Your task to perform on an android device: Find coffee shops on Maps Image 0: 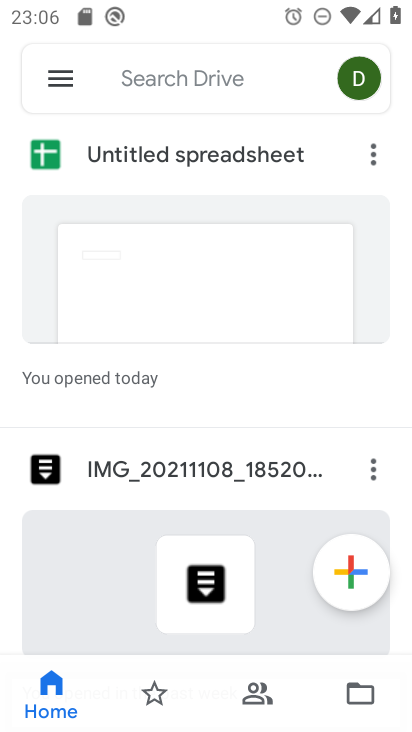
Step 0: press home button
Your task to perform on an android device: Find coffee shops on Maps Image 1: 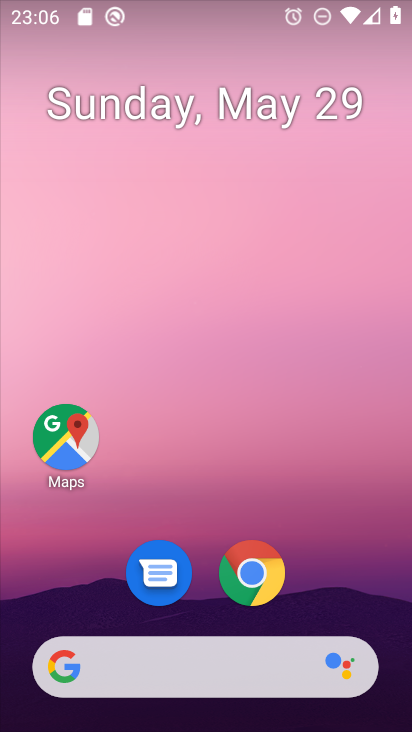
Step 1: click (61, 429)
Your task to perform on an android device: Find coffee shops on Maps Image 2: 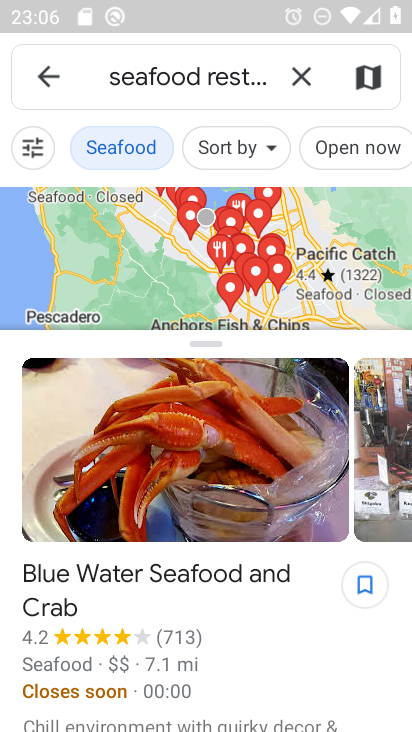
Step 2: click (299, 68)
Your task to perform on an android device: Find coffee shops on Maps Image 3: 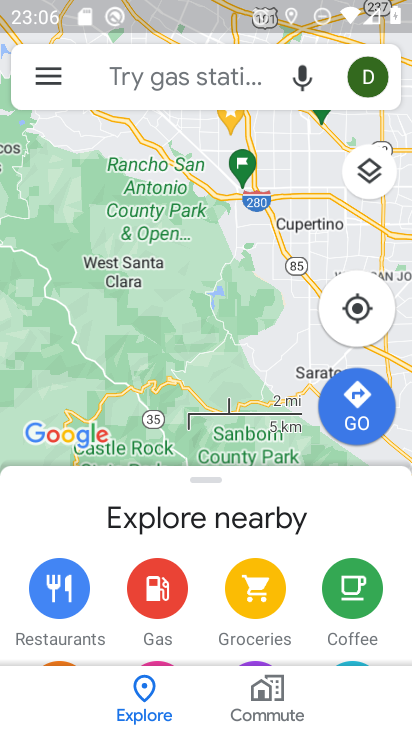
Step 3: click (190, 72)
Your task to perform on an android device: Find coffee shops on Maps Image 4: 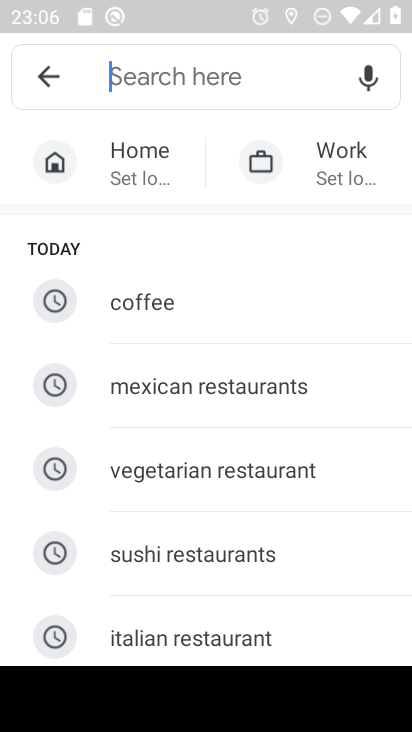
Step 4: click (146, 307)
Your task to perform on an android device: Find coffee shops on Maps Image 5: 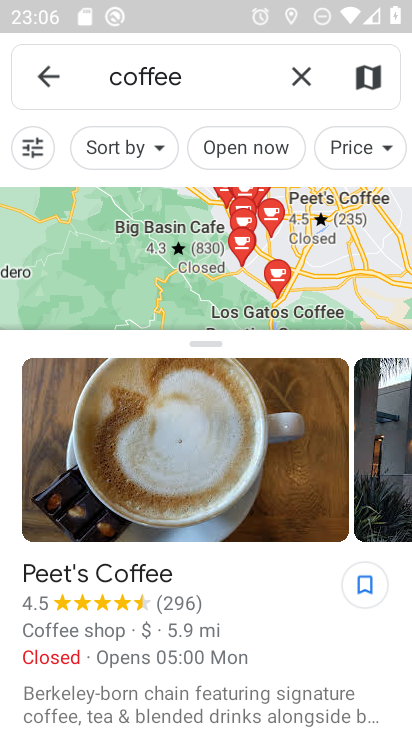
Step 5: task complete